Your task to perform on an android device: toggle translation in the chrome app Image 0: 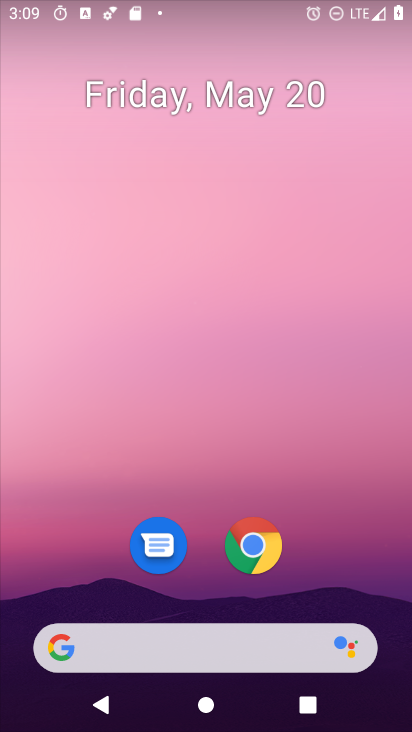
Step 0: drag from (270, 647) to (280, 7)
Your task to perform on an android device: toggle translation in the chrome app Image 1: 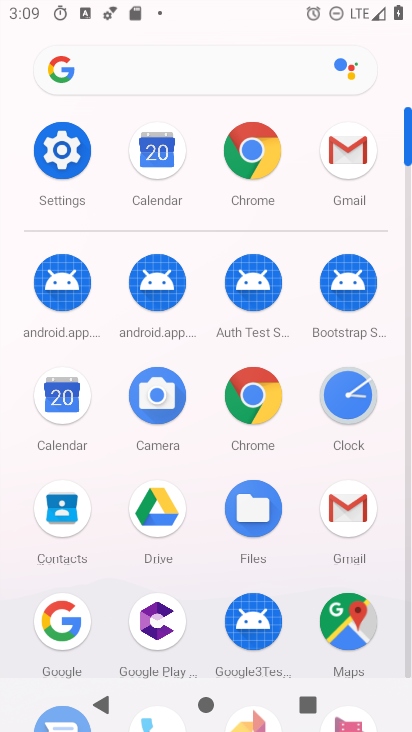
Step 1: click (249, 412)
Your task to perform on an android device: toggle translation in the chrome app Image 2: 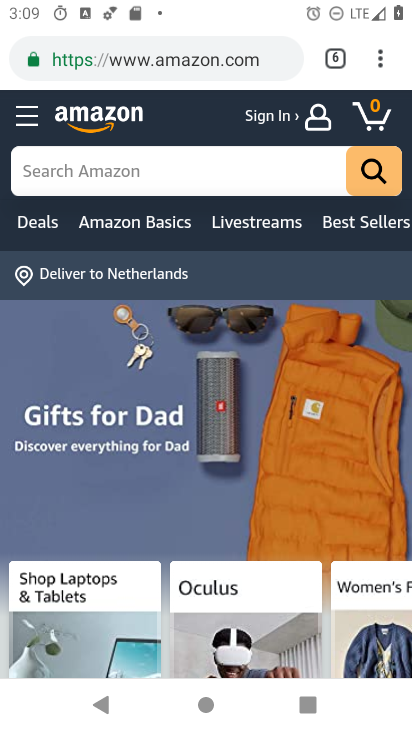
Step 2: drag from (379, 66) to (189, 562)
Your task to perform on an android device: toggle translation in the chrome app Image 3: 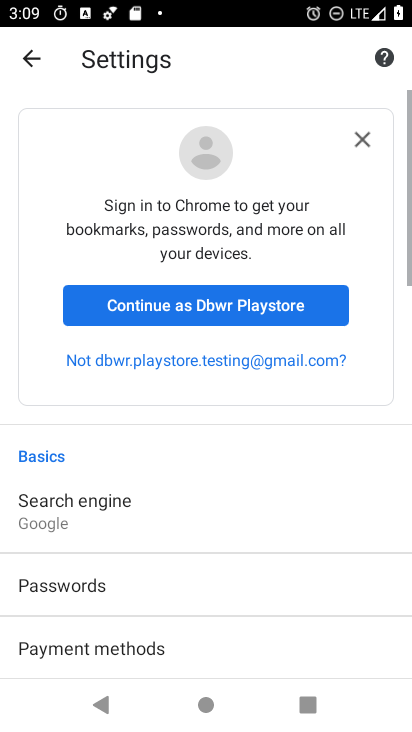
Step 3: drag from (228, 619) to (276, 104)
Your task to perform on an android device: toggle translation in the chrome app Image 4: 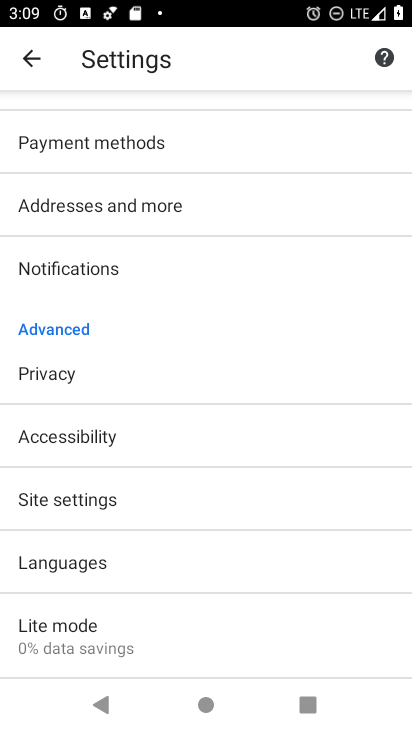
Step 4: click (102, 575)
Your task to perform on an android device: toggle translation in the chrome app Image 5: 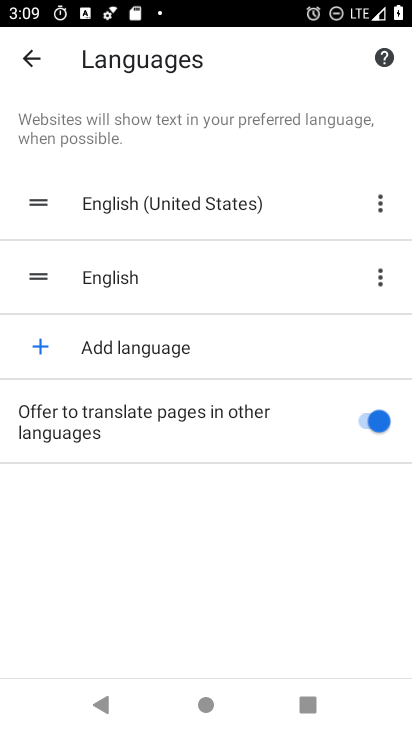
Step 5: click (365, 427)
Your task to perform on an android device: toggle translation in the chrome app Image 6: 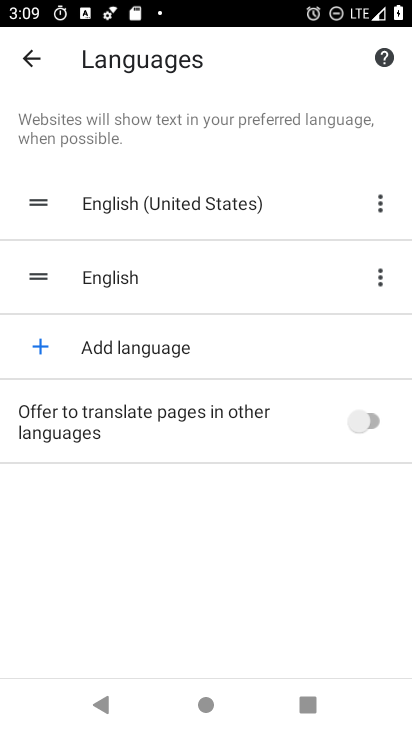
Step 6: task complete